Your task to perform on an android device: Empty the shopping cart on costco. Search for "razer blackwidow" on costco, select the first entry, add it to the cart, then select checkout. Image 0: 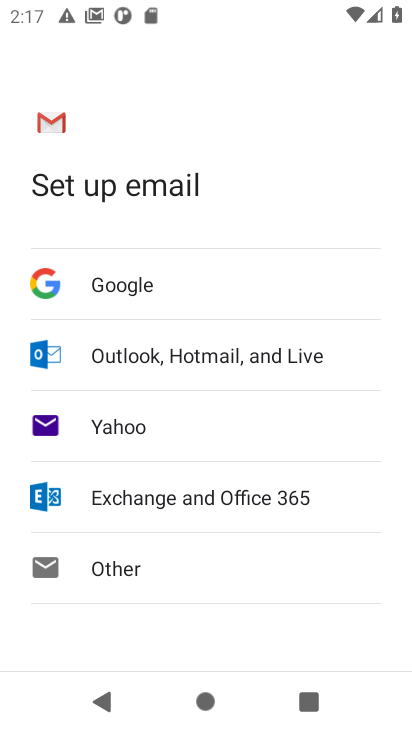
Step 0: press home button
Your task to perform on an android device: Empty the shopping cart on costco. Search for "razer blackwidow" on costco, select the first entry, add it to the cart, then select checkout. Image 1: 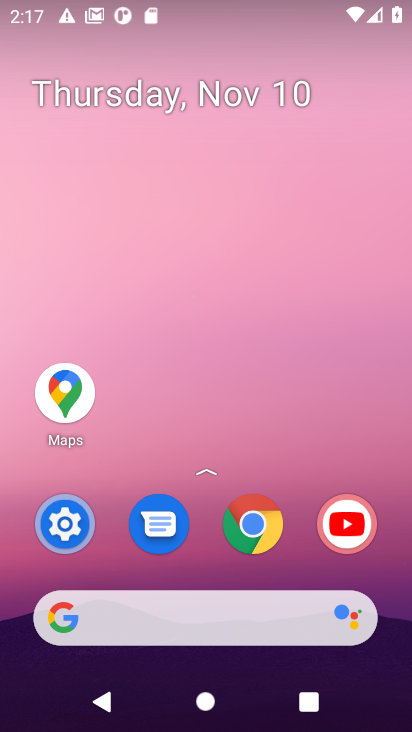
Step 1: click (256, 514)
Your task to perform on an android device: Empty the shopping cart on costco. Search for "razer blackwidow" on costco, select the first entry, add it to the cart, then select checkout. Image 2: 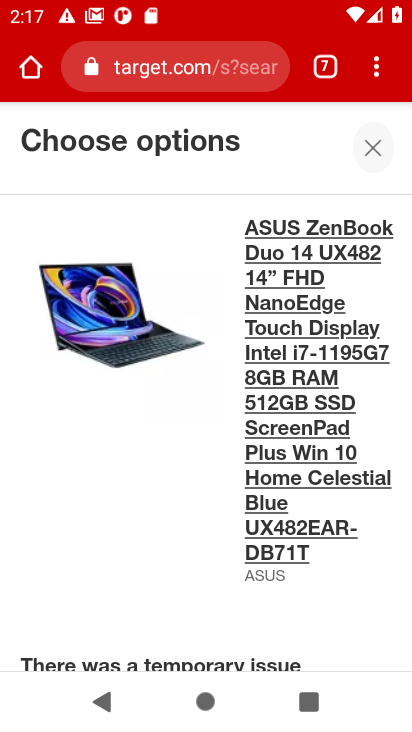
Step 2: click (329, 65)
Your task to perform on an android device: Empty the shopping cart on costco. Search for "razer blackwidow" on costco, select the first entry, add it to the cart, then select checkout. Image 3: 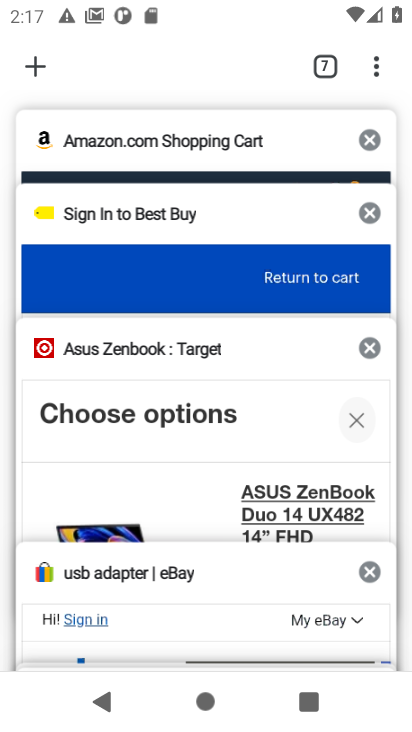
Step 3: drag from (122, 657) to (221, 400)
Your task to perform on an android device: Empty the shopping cart on costco. Search for "razer blackwidow" on costco, select the first entry, add it to the cart, then select checkout. Image 4: 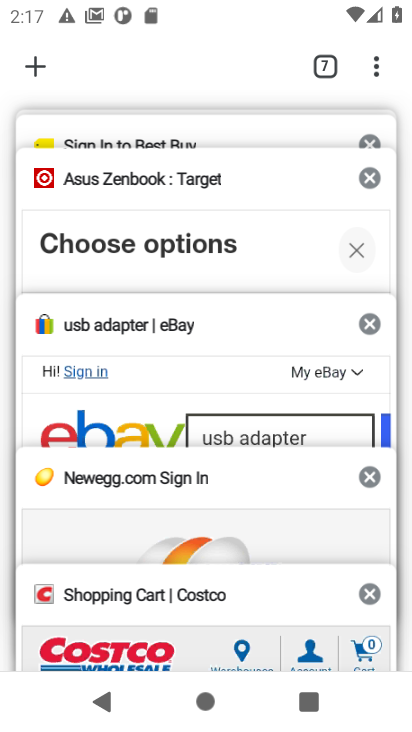
Step 4: click (167, 612)
Your task to perform on an android device: Empty the shopping cart on costco. Search for "razer blackwidow" on costco, select the first entry, add it to the cart, then select checkout. Image 5: 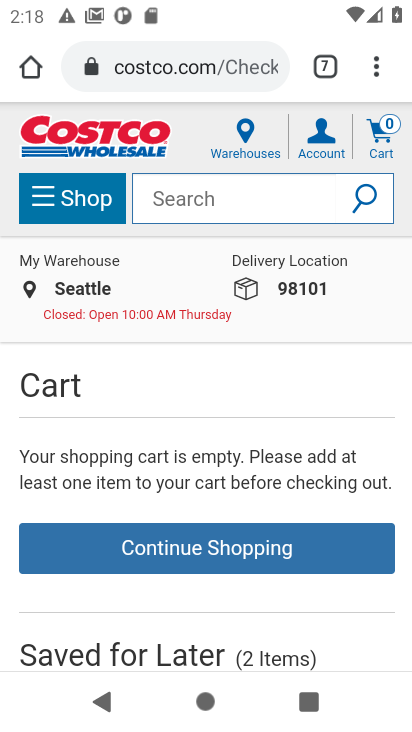
Step 5: click (217, 206)
Your task to perform on an android device: Empty the shopping cart on costco. Search for "razer blackwidow" on costco, select the first entry, add it to the cart, then select checkout. Image 6: 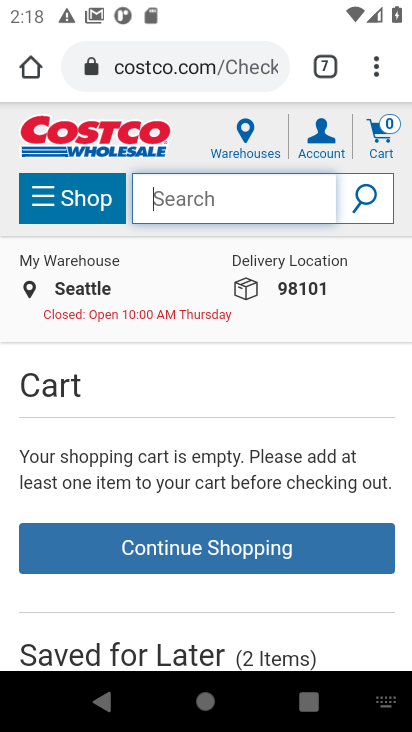
Step 6: type "razer blackwidow"
Your task to perform on an android device: Empty the shopping cart on costco. Search for "razer blackwidow" on costco, select the first entry, add it to the cart, then select checkout. Image 7: 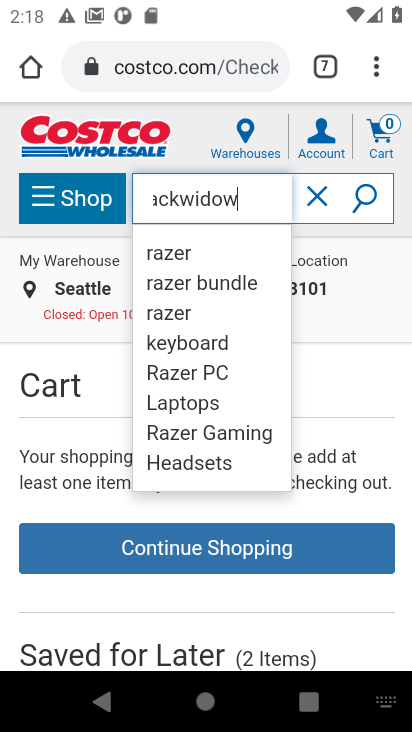
Step 7: click (367, 192)
Your task to perform on an android device: Empty the shopping cart on costco. Search for "razer blackwidow" on costco, select the first entry, add it to the cart, then select checkout. Image 8: 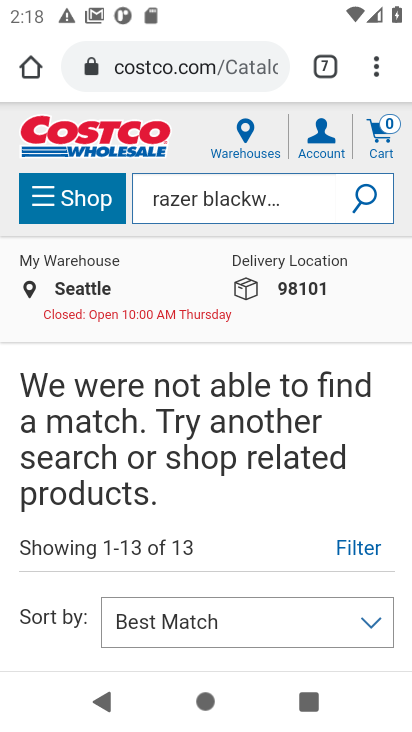
Step 8: drag from (243, 546) to (304, 229)
Your task to perform on an android device: Empty the shopping cart on costco. Search for "razer blackwidow" on costco, select the first entry, add it to the cart, then select checkout. Image 9: 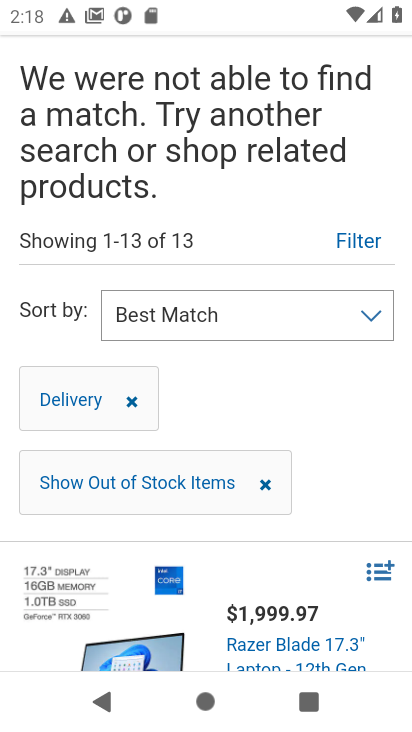
Step 9: drag from (232, 556) to (263, 313)
Your task to perform on an android device: Empty the shopping cart on costco. Search for "razer blackwidow" on costco, select the first entry, add it to the cart, then select checkout. Image 10: 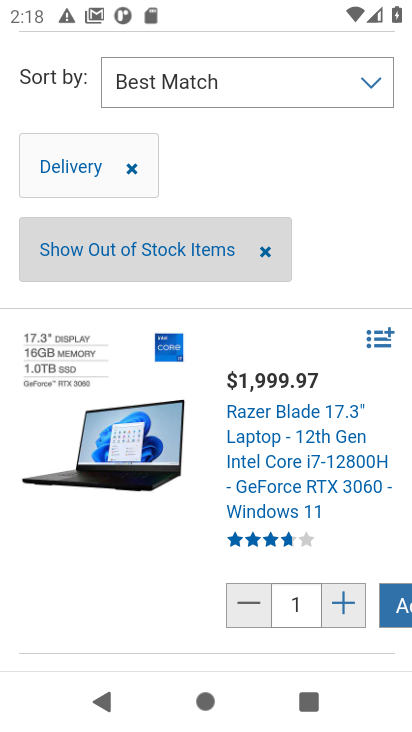
Step 10: drag from (200, 541) to (309, 219)
Your task to perform on an android device: Empty the shopping cart on costco. Search for "razer blackwidow" on costco, select the first entry, add it to the cart, then select checkout. Image 11: 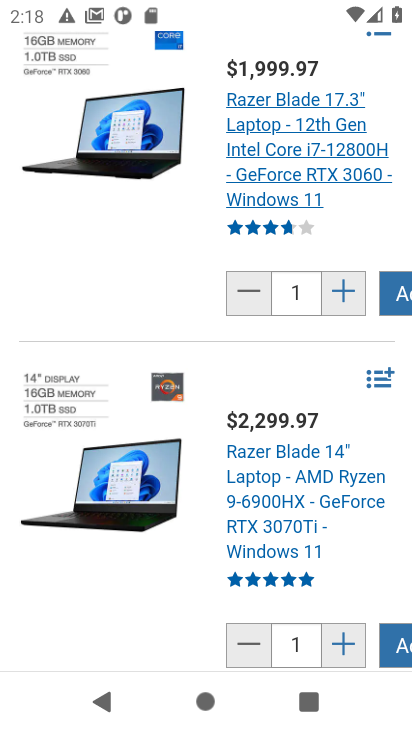
Step 11: drag from (220, 495) to (269, 148)
Your task to perform on an android device: Empty the shopping cart on costco. Search for "razer blackwidow" on costco, select the first entry, add it to the cart, then select checkout. Image 12: 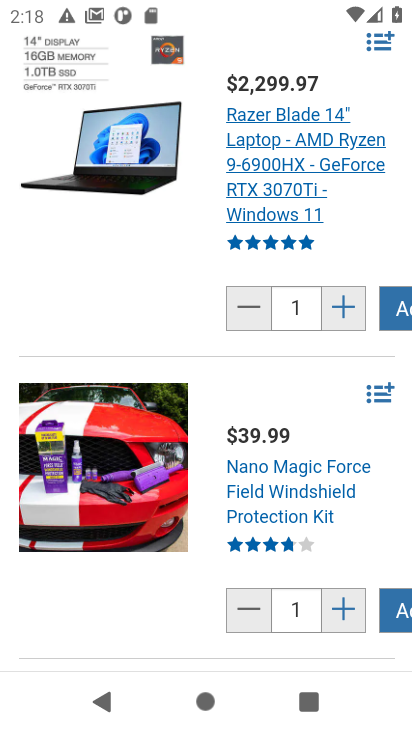
Step 12: drag from (121, 667) to (232, 238)
Your task to perform on an android device: Empty the shopping cart on costco. Search for "razer blackwidow" on costco, select the first entry, add it to the cart, then select checkout. Image 13: 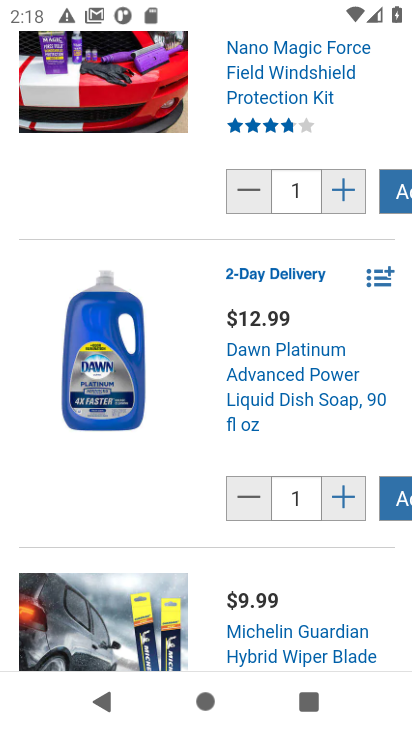
Step 13: drag from (210, 176) to (224, 485)
Your task to perform on an android device: Empty the shopping cart on costco. Search for "razer blackwidow" on costco, select the first entry, add it to the cart, then select checkout. Image 14: 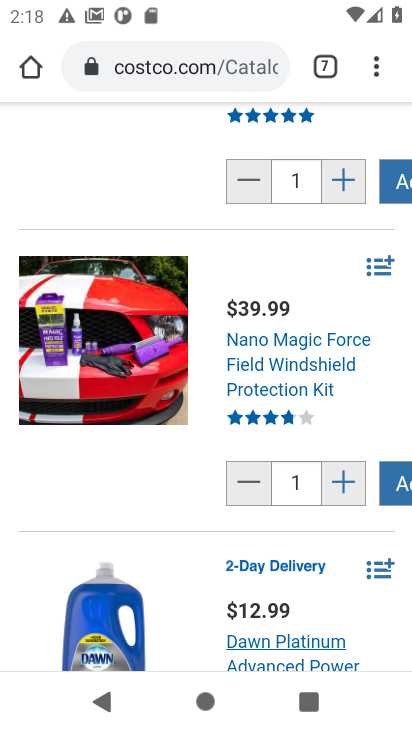
Step 14: drag from (292, 258) to (302, 383)
Your task to perform on an android device: Empty the shopping cart on costco. Search for "razer blackwidow" on costco, select the first entry, add it to the cart, then select checkout. Image 15: 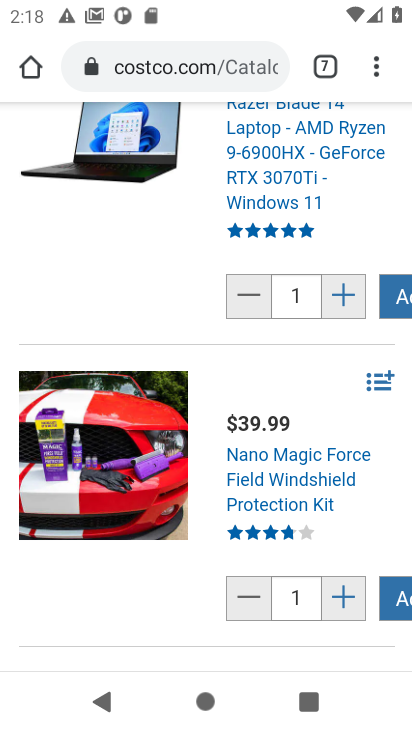
Step 15: drag from (338, 204) to (309, 369)
Your task to perform on an android device: Empty the shopping cart on costco. Search for "razer blackwidow" on costco, select the first entry, add it to the cart, then select checkout. Image 16: 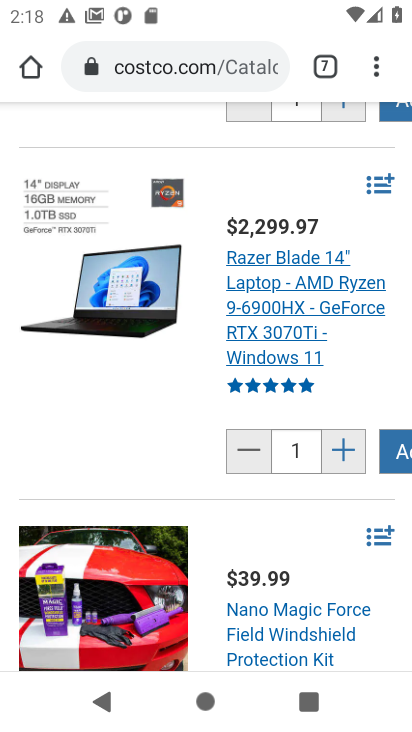
Step 16: click (399, 109)
Your task to perform on an android device: Empty the shopping cart on costco. Search for "razer blackwidow" on costco, select the first entry, add it to the cart, then select checkout. Image 17: 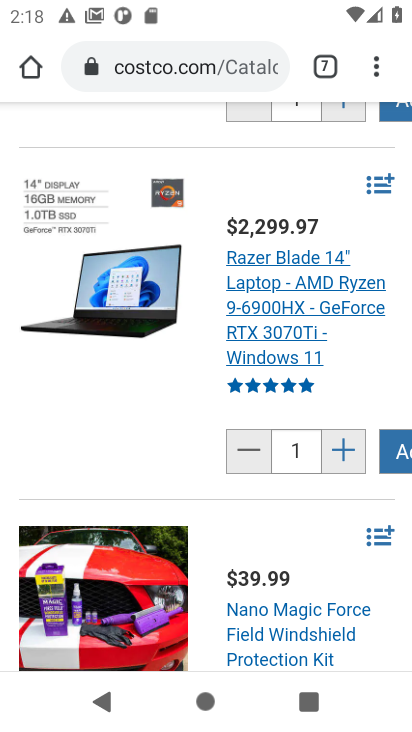
Step 17: drag from (383, 142) to (365, 323)
Your task to perform on an android device: Empty the shopping cart on costco. Search for "razer blackwidow" on costco, select the first entry, add it to the cart, then select checkout. Image 18: 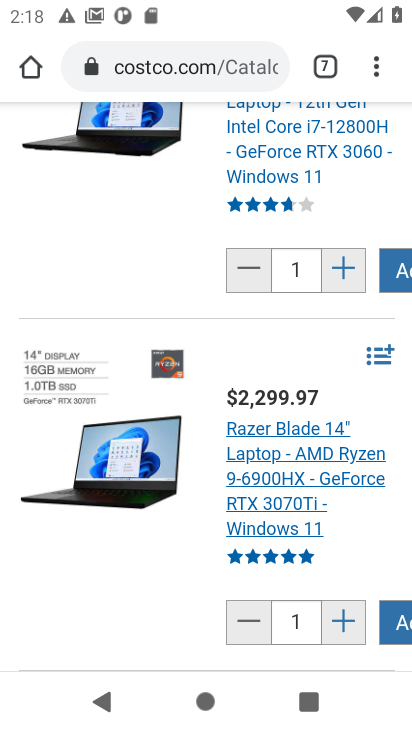
Step 18: click (405, 268)
Your task to perform on an android device: Empty the shopping cart on costco. Search for "razer blackwidow" on costco, select the first entry, add it to the cart, then select checkout. Image 19: 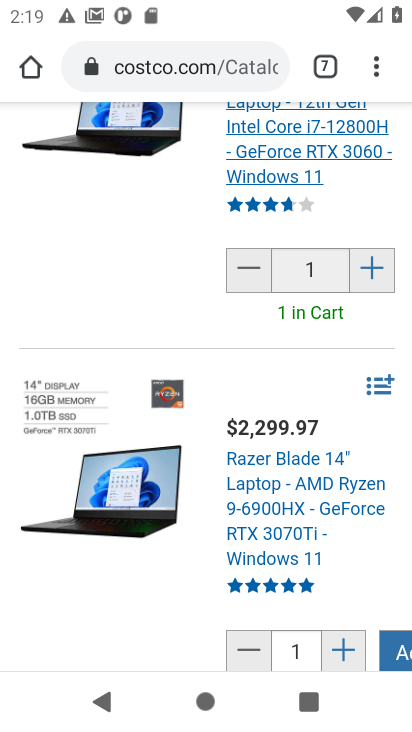
Step 19: task complete